Your task to perform on an android device: find which apps use the phone's location Image 0: 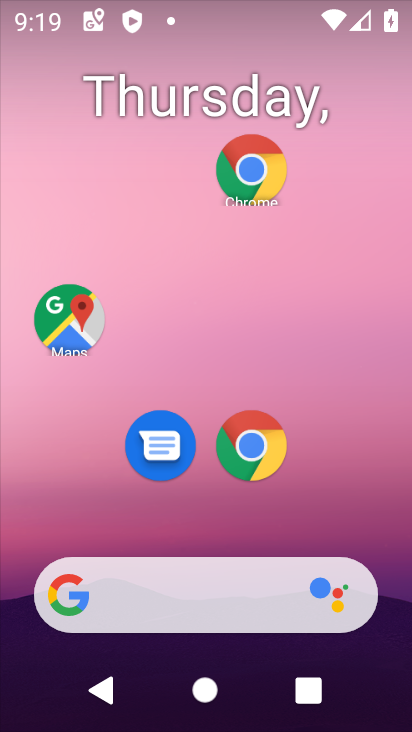
Step 0: drag from (244, 540) to (227, 12)
Your task to perform on an android device: find which apps use the phone's location Image 1: 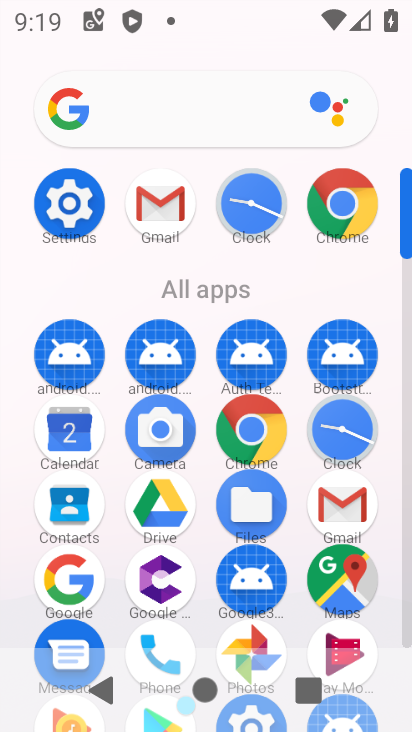
Step 1: click (65, 200)
Your task to perform on an android device: find which apps use the phone's location Image 2: 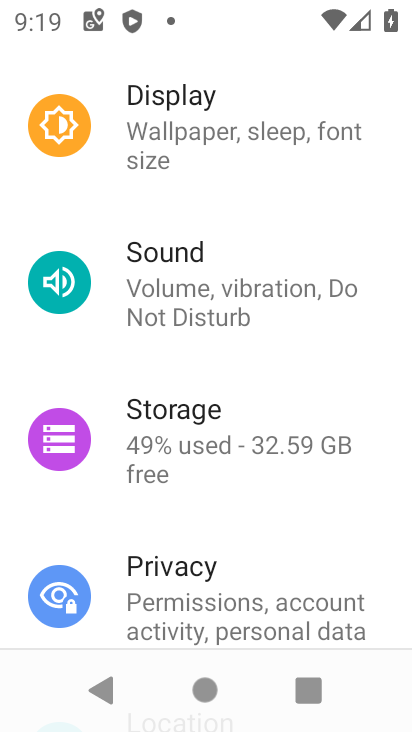
Step 2: drag from (202, 407) to (166, 18)
Your task to perform on an android device: find which apps use the phone's location Image 3: 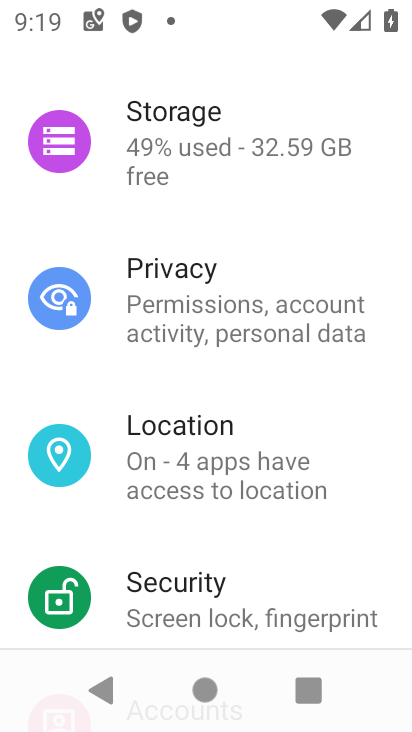
Step 3: click (248, 491)
Your task to perform on an android device: find which apps use the phone's location Image 4: 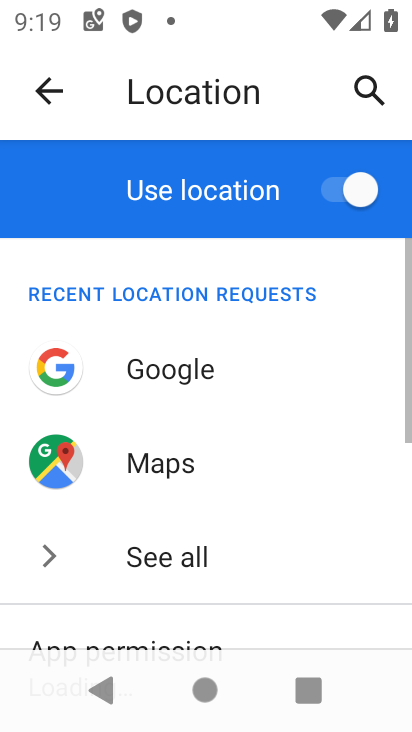
Step 4: drag from (193, 590) to (179, 41)
Your task to perform on an android device: find which apps use the phone's location Image 5: 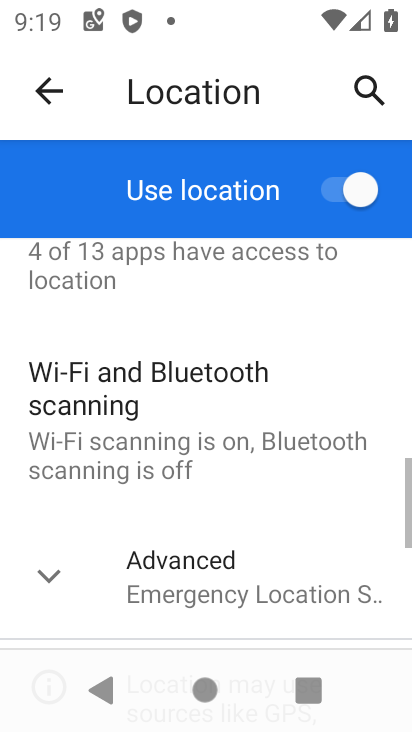
Step 5: drag from (236, 546) to (202, 129)
Your task to perform on an android device: find which apps use the phone's location Image 6: 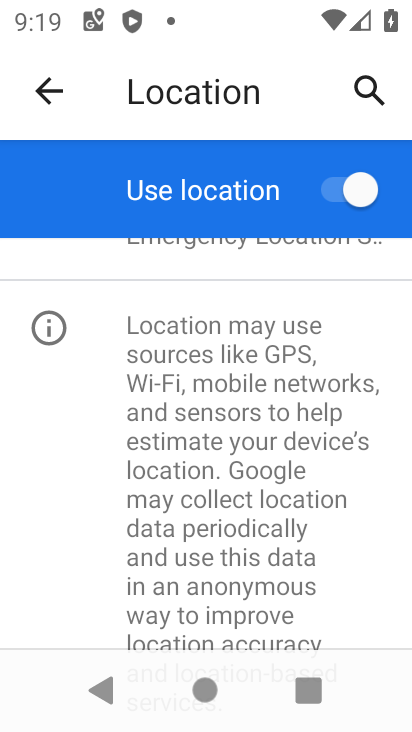
Step 6: drag from (211, 319) to (214, 619)
Your task to perform on an android device: find which apps use the phone's location Image 7: 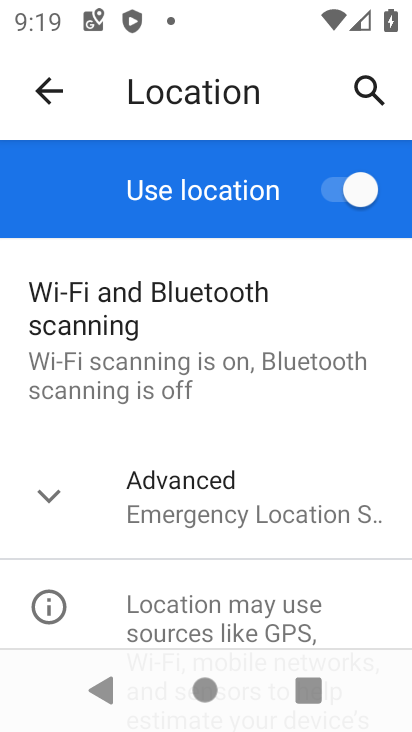
Step 7: drag from (192, 347) to (184, 654)
Your task to perform on an android device: find which apps use the phone's location Image 8: 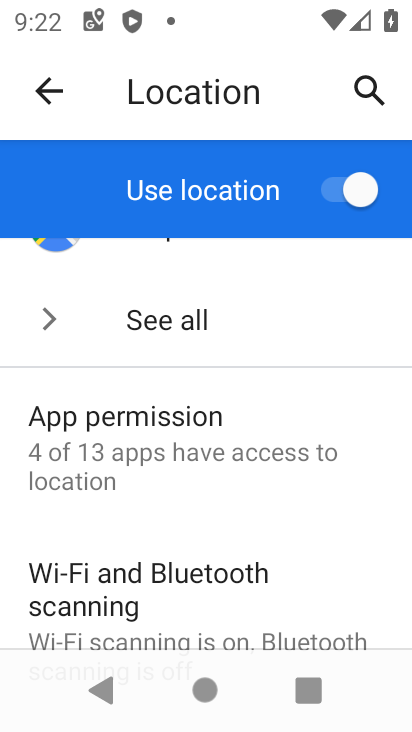
Step 8: click (87, 434)
Your task to perform on an android device: find which apps use the phone's location Image 9: 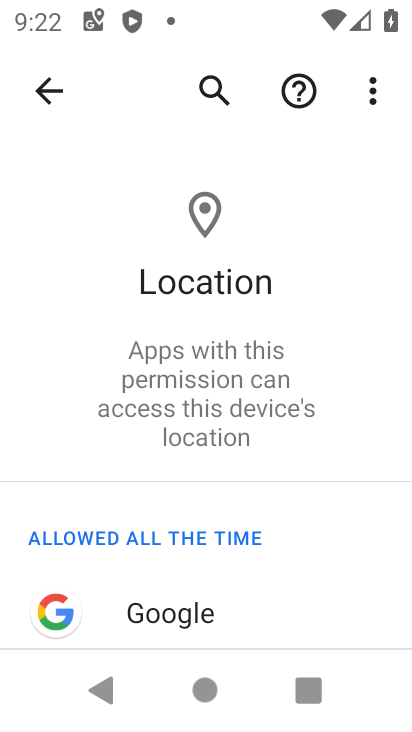
Step 9: task complete